Your task to perform on an android device: Open maps Image 0: 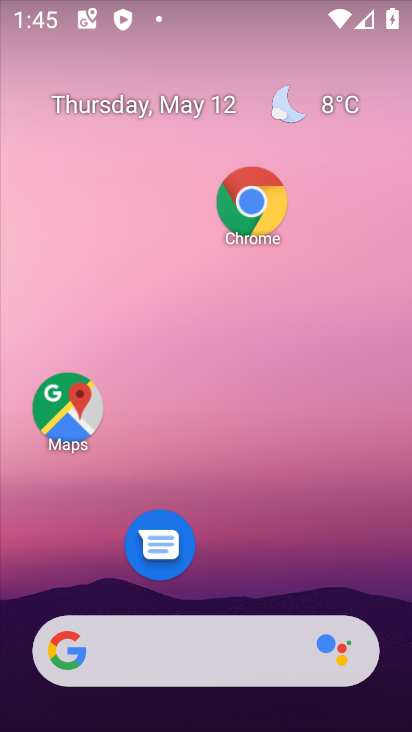
Step 0: click (237, 357)
Your task to perform on an android device: Open maps Image 1: 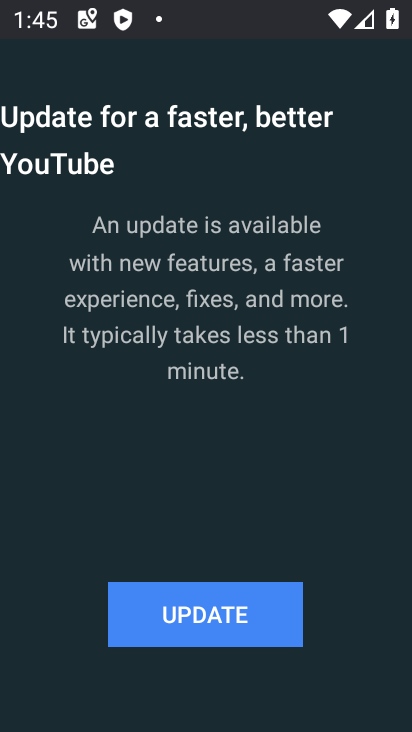
Step 1: press home button
Your task to perform on an android device: Open maps Image 2: 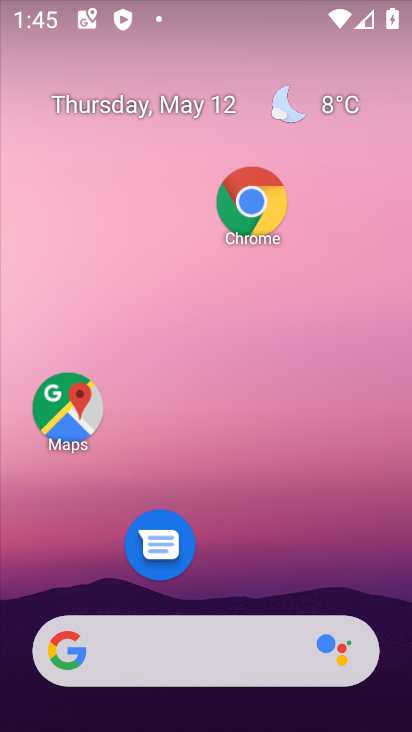
Step 2: drag from (210, 561) to (148, 16)
Your task to perform on an android device: Open maps Image 3: 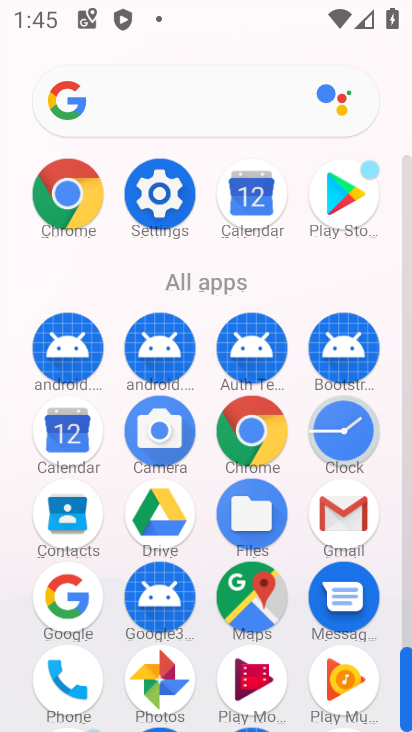
Step 3: drag from (186, 634) to (243, 354)
Your task to perform on an android device: Open maps Image 4: 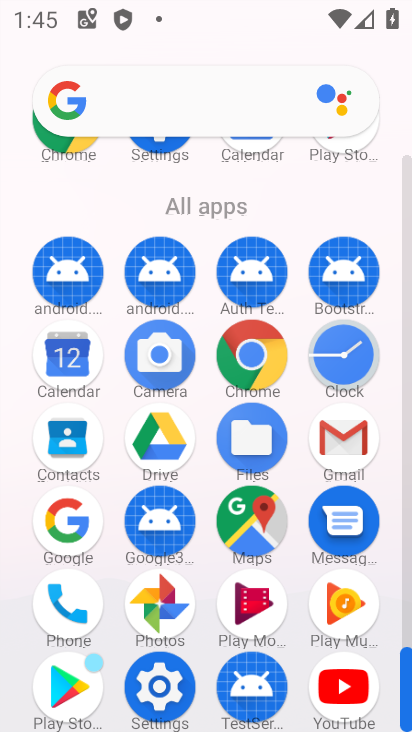
Step 4: click (243, 537)
Your task to perform on an android device: Open maps Image 5: 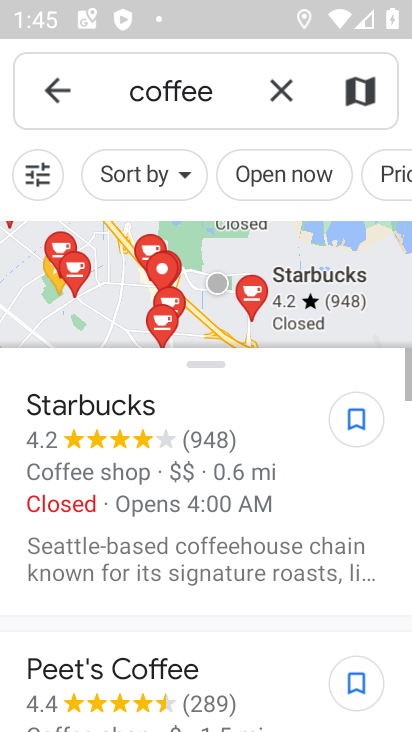
Step 5: task complete